Your task to perform on an android device: Open Wikipedia Image 0: 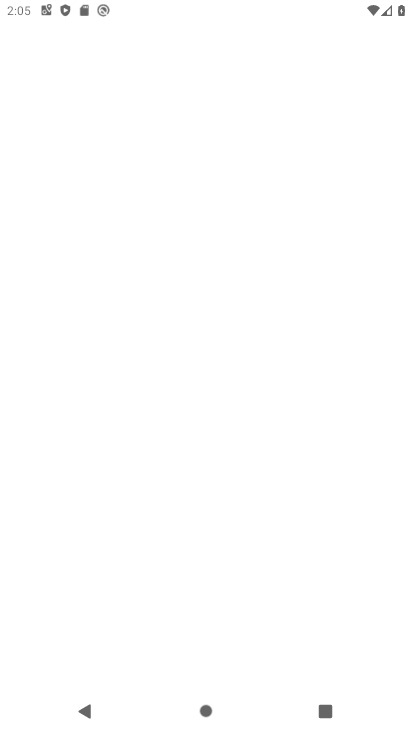
Step 0: press back button
Your task to perform on an android device: Open Wikipedia Image 1: 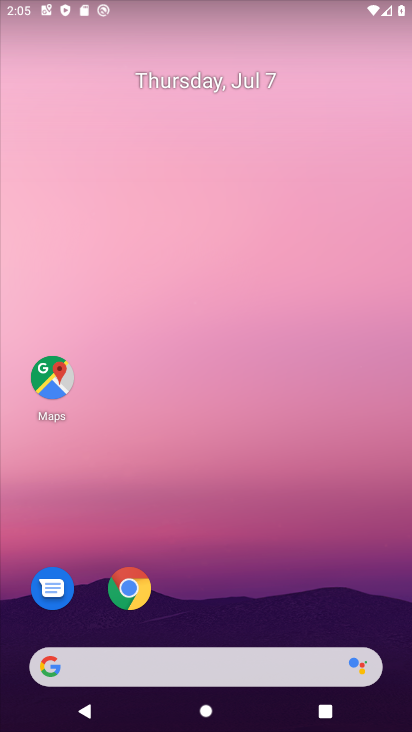
Step 1: click (134, 597)
Your task to perform on an android device: Open Wikipedia Image 2: 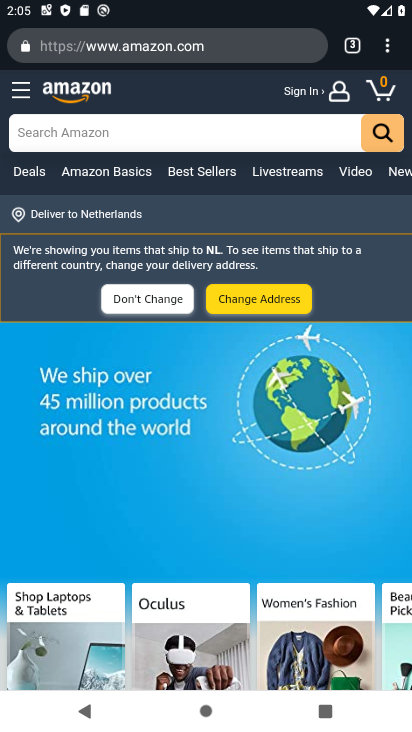
Step 2: click (356, 47)
Your task to perform on an android device: Open Wikipedia Image 3: 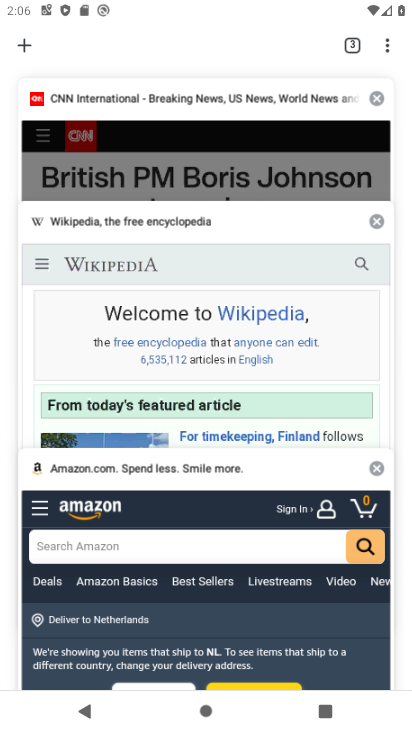
Step 3: click (114, 295)
Your task to perform on an android device: Open Wikipedia Image 4: 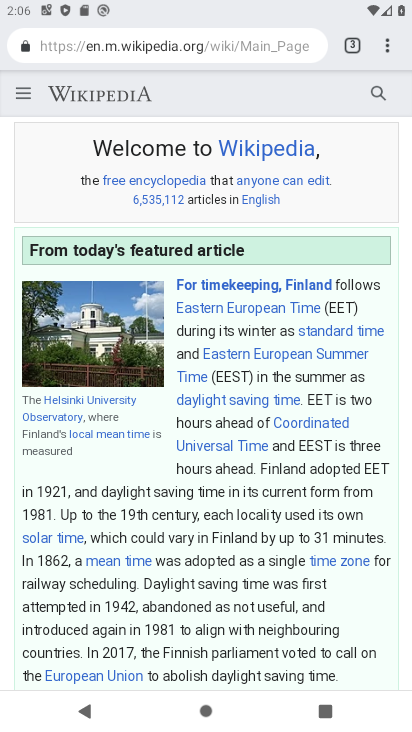
Step 4: task complete